Your task to perform on an android device: Show me productivity apps on the Play Store Image 0: 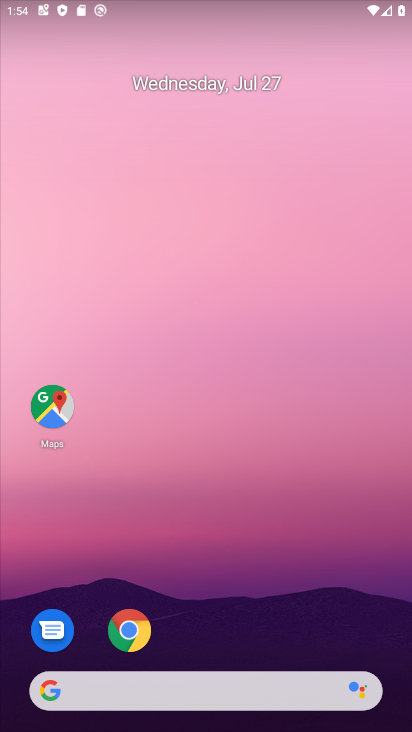
Step 0: drag from (303, 628) to (305, 82)
Your task to perform on an android device: Show me productivity apps on the Play Store Image 1: 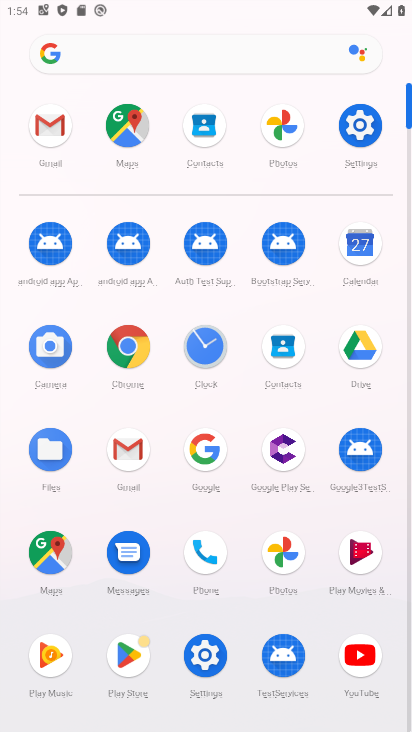
Step 1: click (134, 654)
Your task to perform on an android device: Show me productivity apps on the Play Store Image 2: 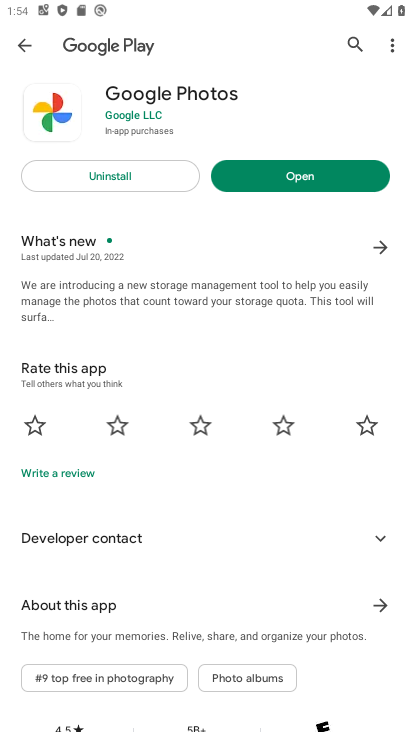
Step 2: press back button
Your task to perform on an android device: Show me productivity apps on the Play Store Image 3: 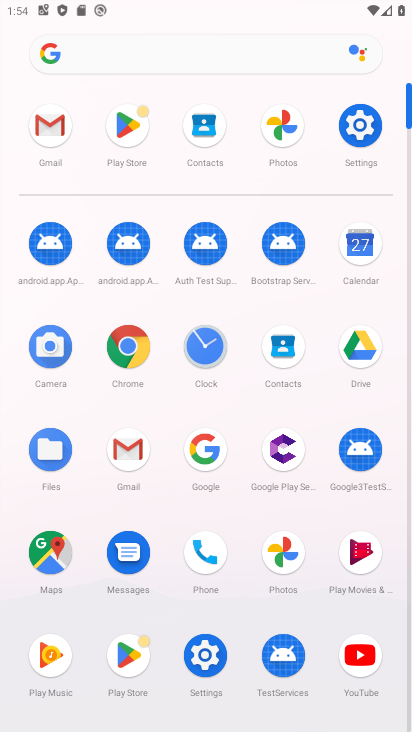
Step 3: click (129, 652)
Your task to perform on an android device: Show me productivity apps on the Play Store Image 4: 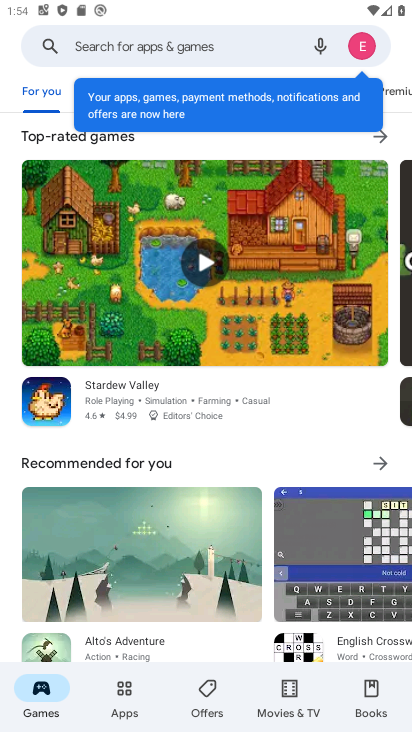
Step 4: click (130, 701)
Your task to perform on an android device: Show me productivity apps on the Play Store Image 5: 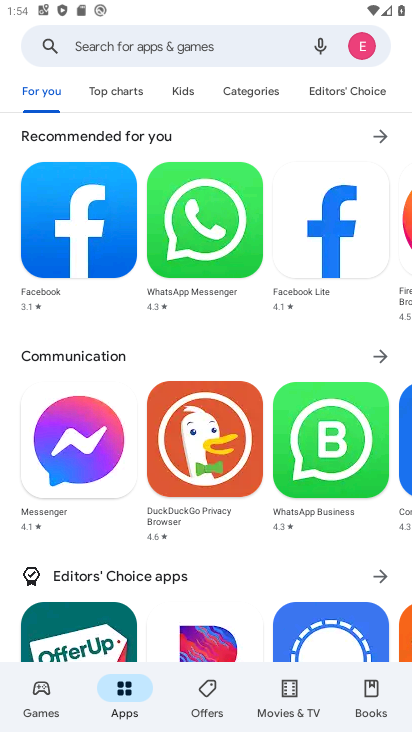
Step 5: click (248, 87)
Your task to perform on an android device: Show me productivity apps on the Play Store Image 6: 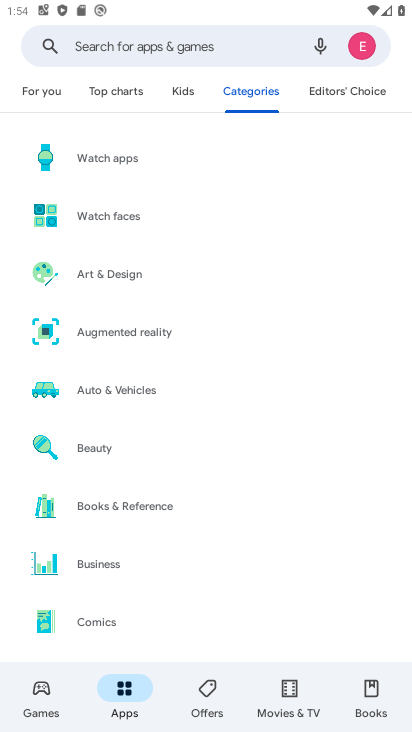
Step 6: drag from (207, 633) to (236, 190)
Your task to perform on an android device: Show me productivity apps on the Play Store Image 7: 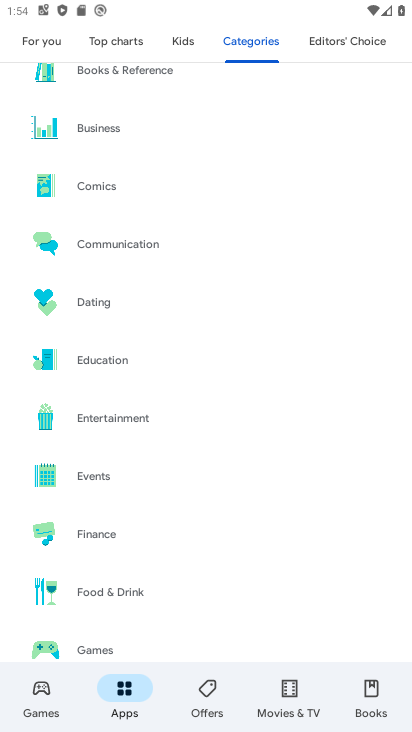
Step 7: drag from (223, 645) to (235, 178)
Your task to perform on an android device: Show me productivity apps on the Play Store Image 8: 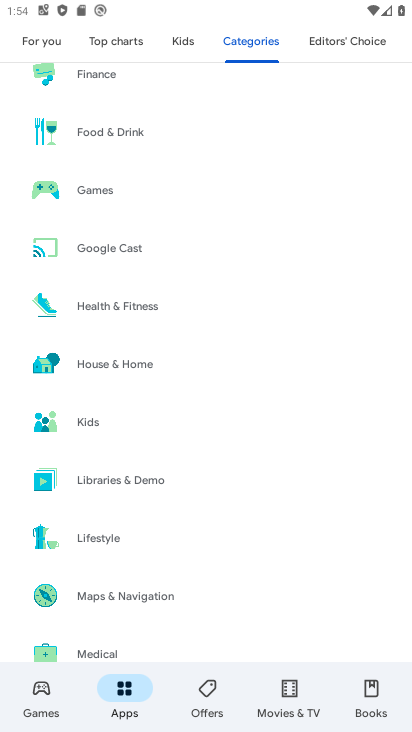
Step 8: drag from (226, 643) to (231, 109)
Your task to perform on an android device: Show me productivity apps on the Play Store Image 9: 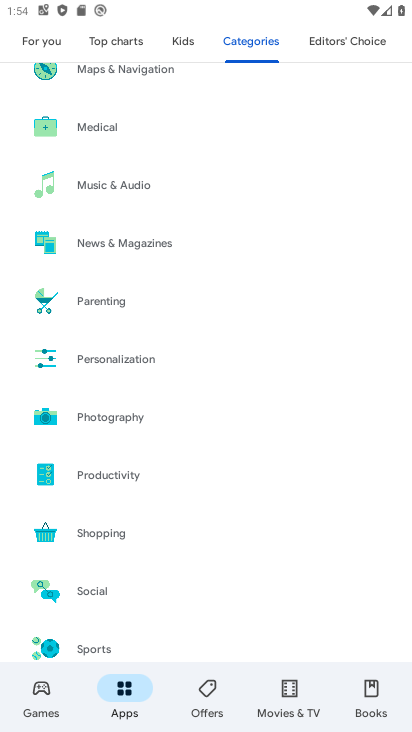
Step 9: click (99, 477)
Your task to perform on an android device: Show me productivity apps on the Play Store Image 10: 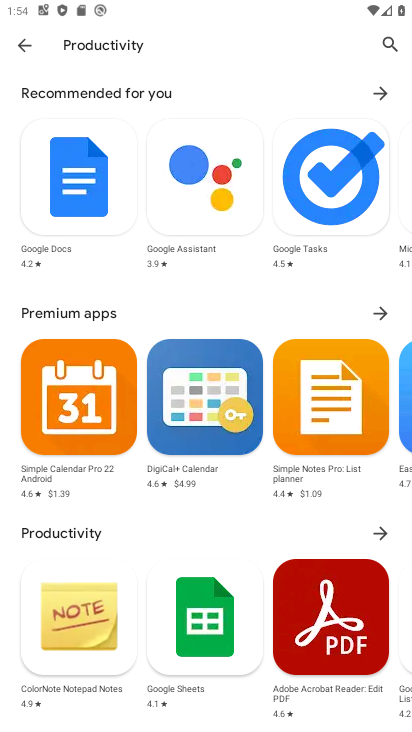
Step 10: click (381, 531)
Your task to perform on an android device: Show me productivity apps on the Play Store Image 11: 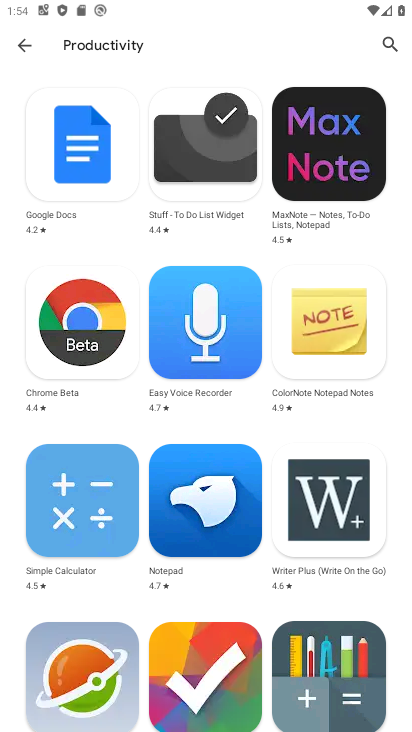
Step 11: task complete